Your task to perform on an android device: Go to Maps Image 0: 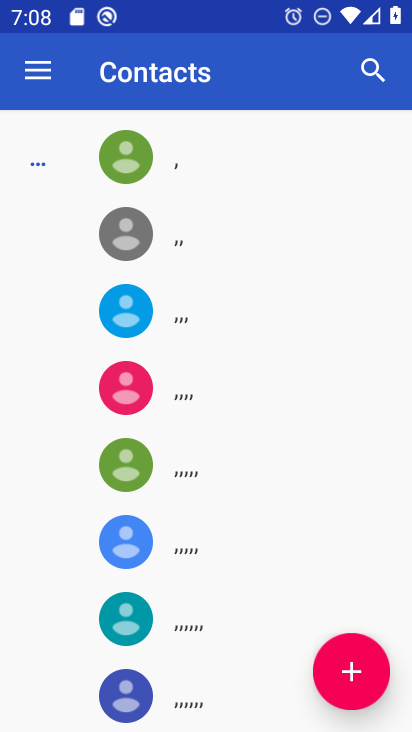
Step 0: press home button
Your task to perform on an android device: Go to Maps Image 1: 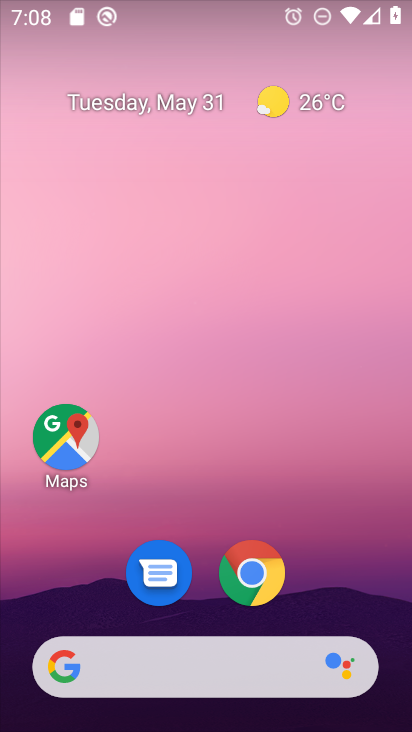
Step 1: drag from (389, 646) to (248, 22)
Your task to perform on an android device: Go to Maps Image 2: 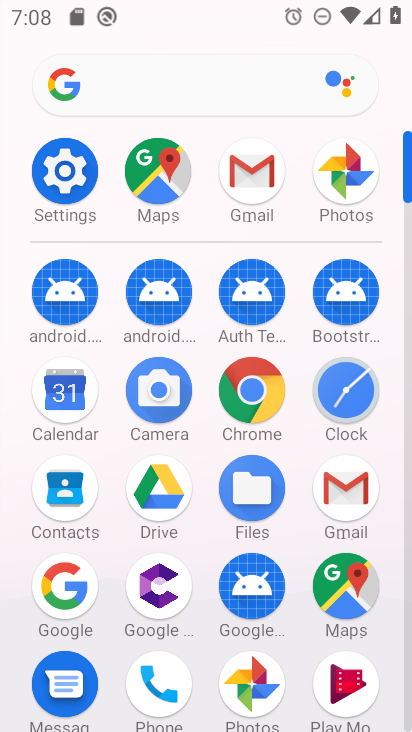
Step 2: click (346, 559)
Your task to perform on an android device: Go to Maps Image 3: 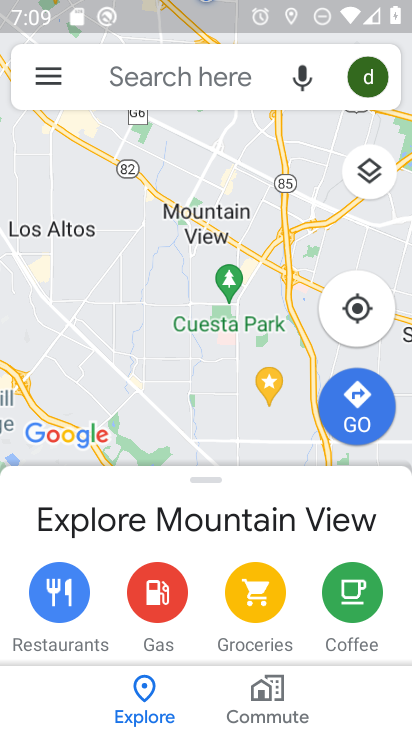
Step 3: task complete